Your task to perform on an android device: allow notifications from all sites in the chrome app Image 0: 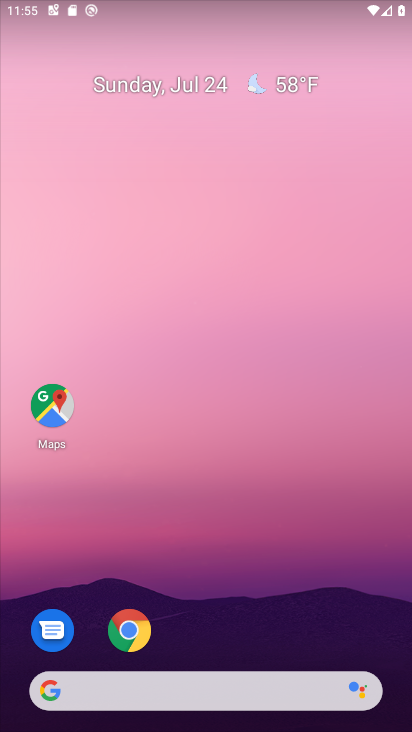
Step 0: click (125, 626)
Your task to perform on an android device: allow notifications from all sites in the chrome app Image 1: 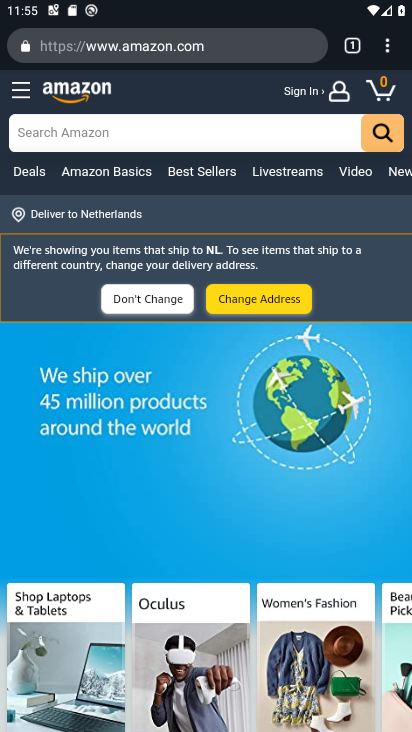
Step 1: click (385, 52)
Your task to perform on an android device: allow notifications from all sites in the chrome app Image 2: 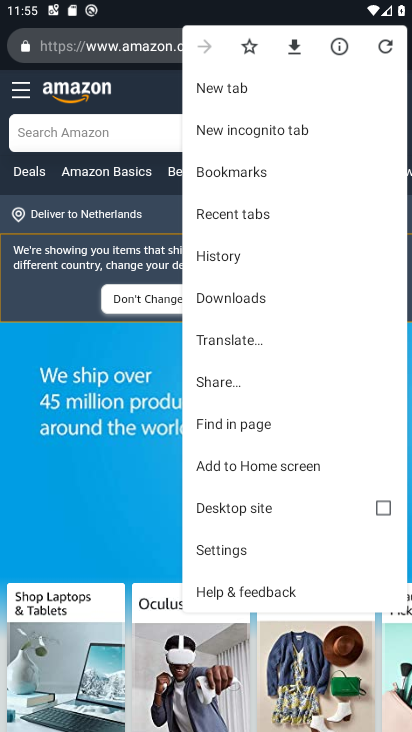
Step 2: click (236, 547)
Your task to perform on an android device: allow notifications from all sites in the chrome app Image 3: 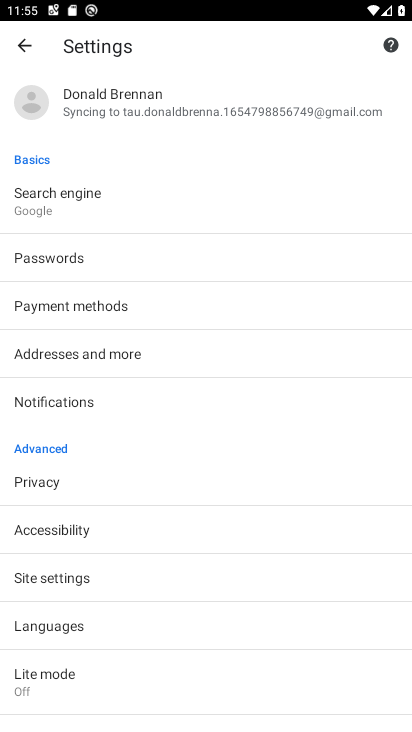
Step 3: click (77, 577)
Your task to perform on an android device: allow notifications from all sites in the chrome app Image 4: 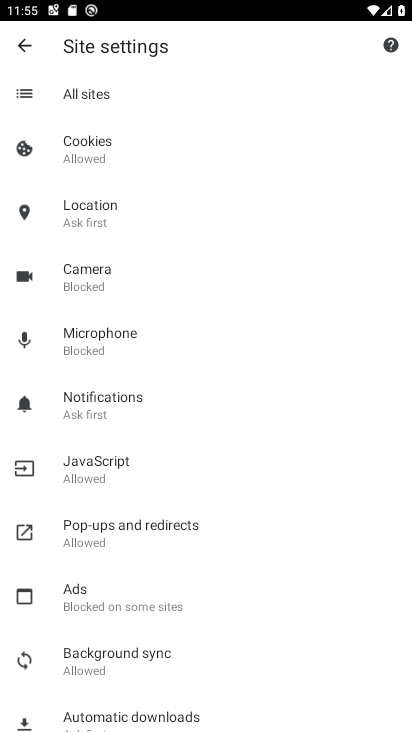
Step 4: click (96, 408)
Your task to perform on an android device: allow notifications from all sites in the chrome app Image 5: 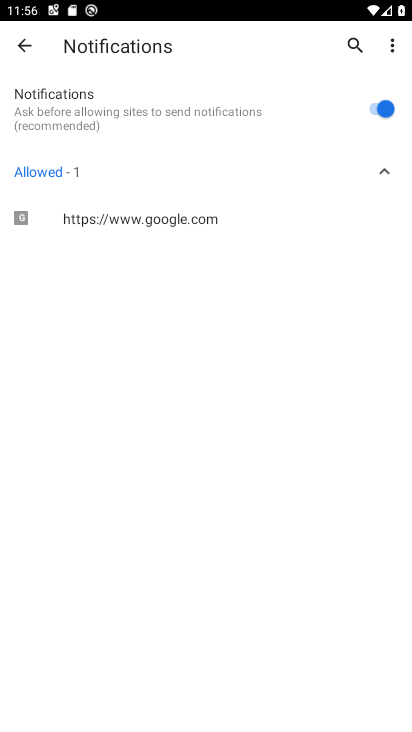
Step 5: click (371, 115)
Your task to perform on an android device: allow notifications from all sites in the chrome app Image 6: 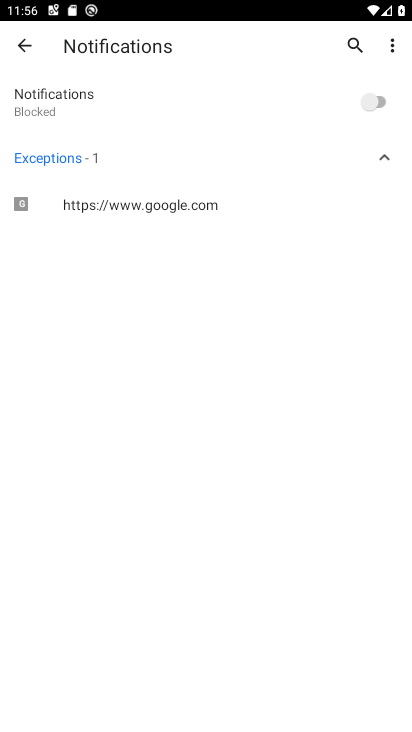
Step 6: task complete